Your task to perform on an android device: open a bookmark in the chrome app Image 0: 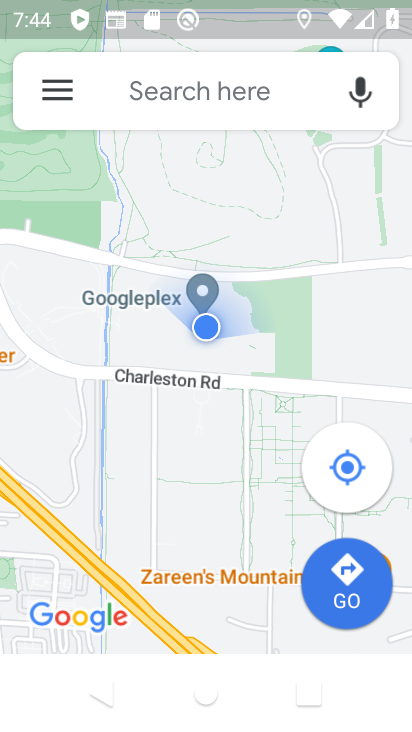
Step 0: press back button
Your task to perform on an android device: open a bookmark in the chrome app Image 1: 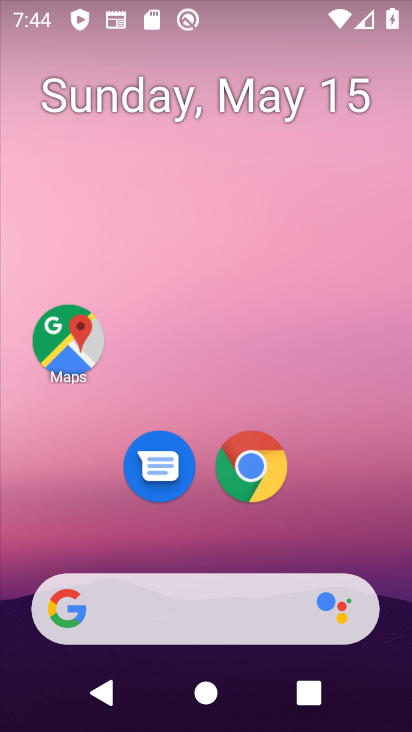
Step 1: click (250, 450)
Your task to perform on an android device: open a bookmark in the chrome app Image 2: 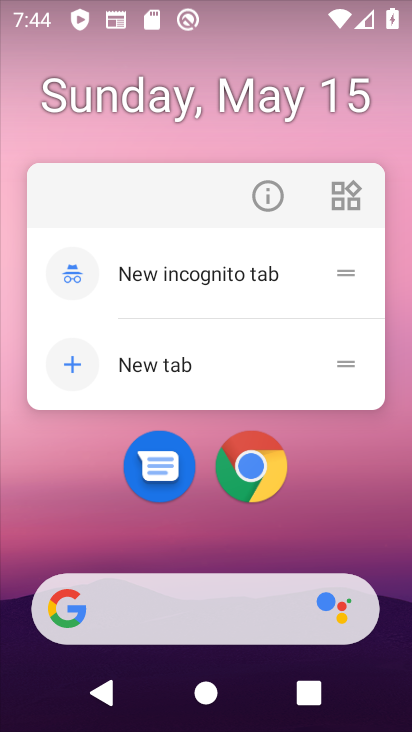
Step 2: click (253, 465)
Your task to perform on an android device: open a bookmark in the chrome app Image 3: 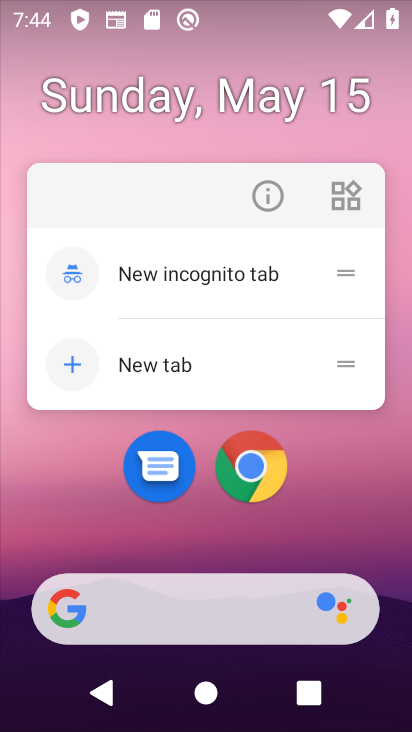
Step 3: click (252, 490)
Your task to perform on an android device: open a bookmark in the chrome app Image 4: 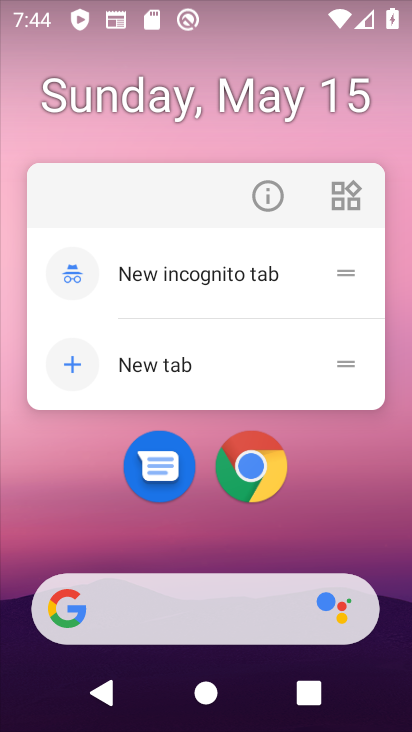
Step 4: click (251, 485)
Your task to perform on an android device: open a bookmark in the chrome app Image 5: 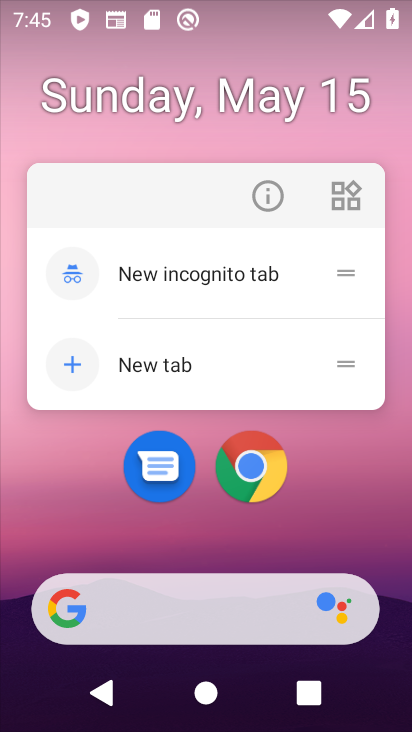
Step 5: click (243, 476)
Your task to perform on an android device: open a bookmark in the chrome app Image 6: 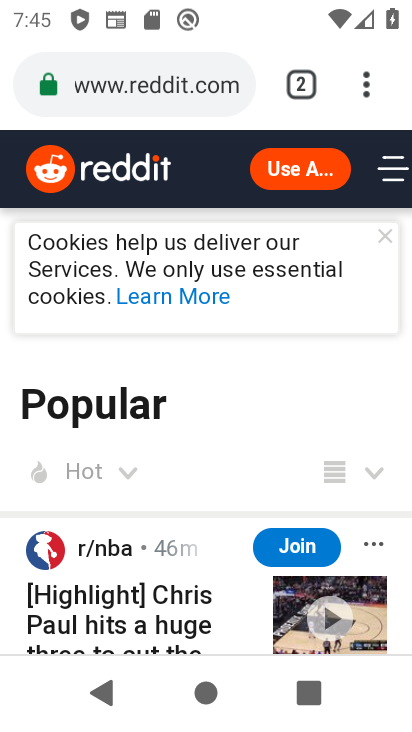
Step 6: click (371, 77)
Your task to perform on an android device: open a bookmark in the chrome app Image 7: 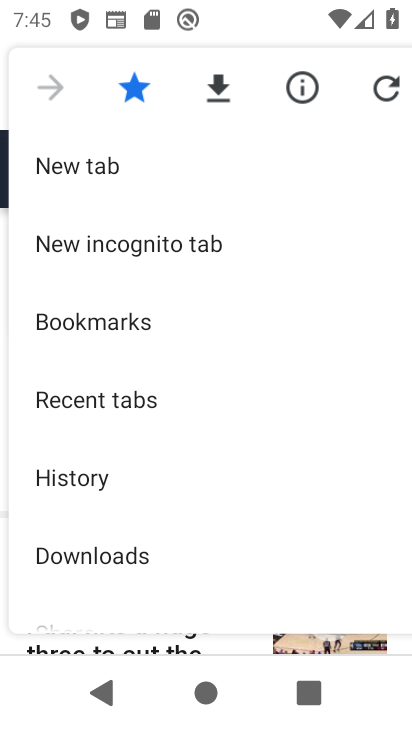
Step 7: click (107, 314)
Your task to perform on an android device: open a bookmark in the chrome app Image 8: 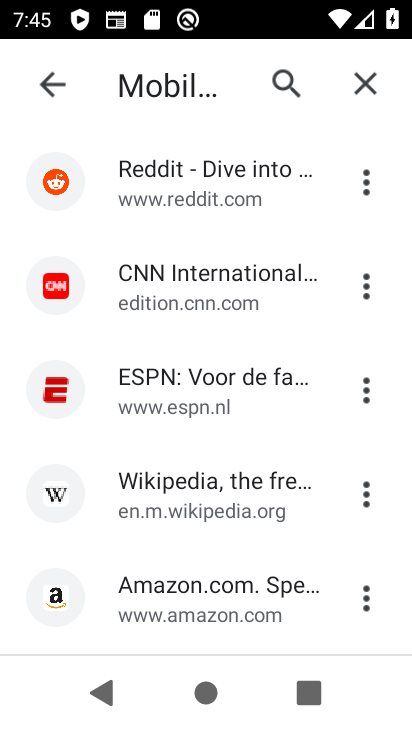
Step 8: task complete